Your task to perform on an android device: Is it going to rain tomorrow? Image 0: 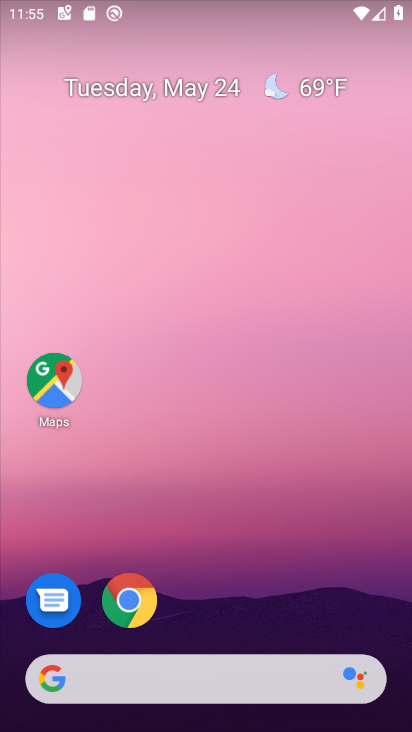
Step 0: click (266, 669)
Your task to perform on an android device: Is it going to rain tomorrow? Image 1: 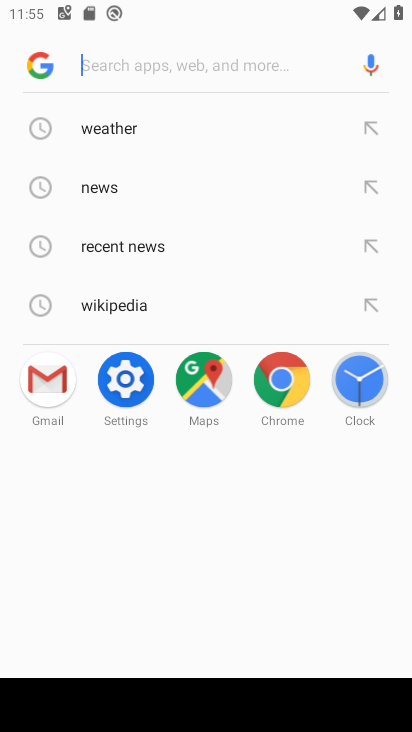
Step 1: click (129, 137)
Your task to perform on an android device: Is it going to rain tomorrow? Image 2: 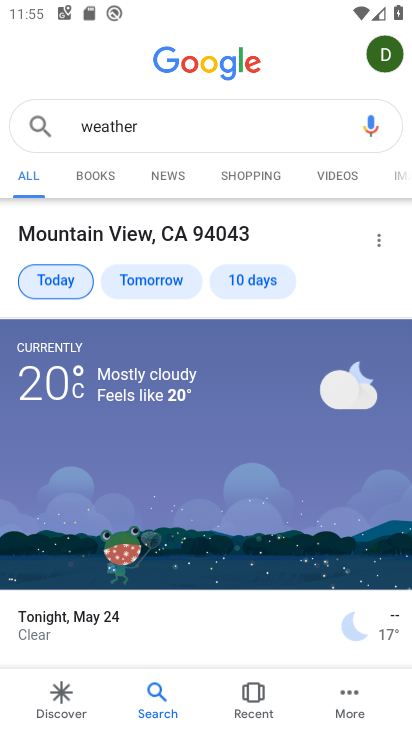
Step 2: click (170, 282)
Your task to perform on an android device: Is it going to rain tomorrow? Image 3: 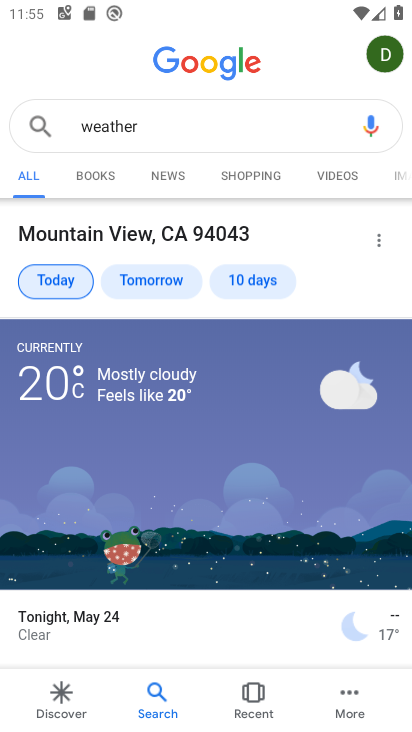
Step 3: click (168, 282)
Your task to perform on an android device: Is it going to rain tomorrow? Image 4: 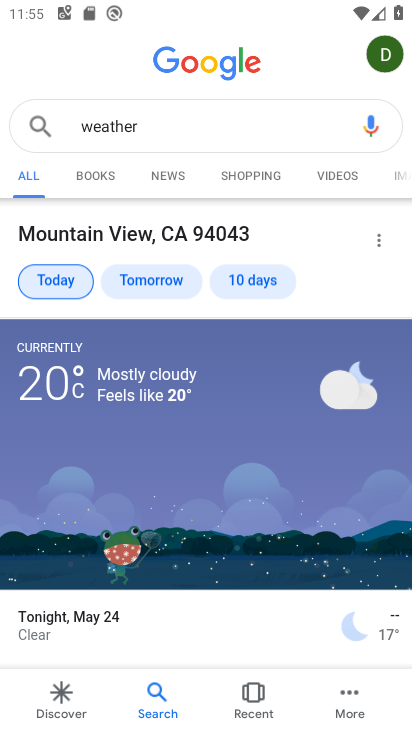
Step 4: click (168, 282)
Your task to perform on an android device: Is it going to rain tomorrow? Image 5: 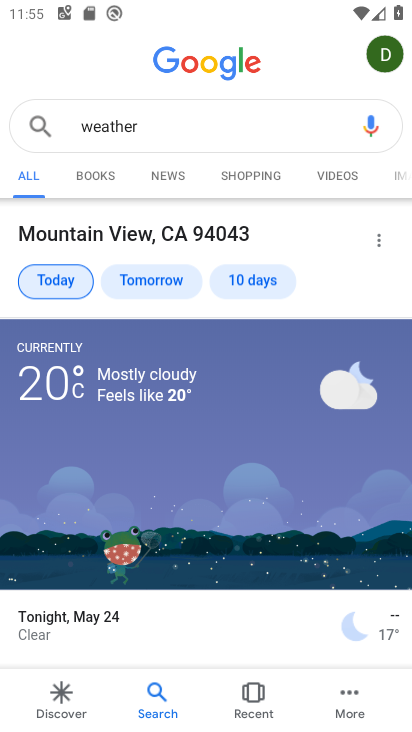
Step 5: click (168, 282)
Your task to perform on an android device: Is it going to rain tomorrow? Image 6: 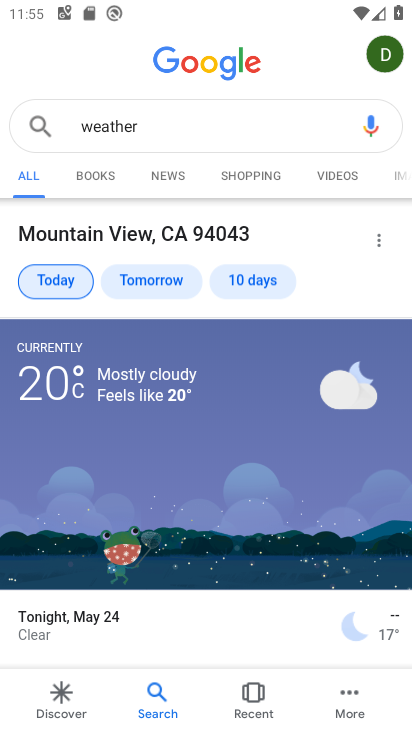
Step 6: click (168, 282)
Your task to perform on an android device: Is it going to rain tomorrow? Image 7: 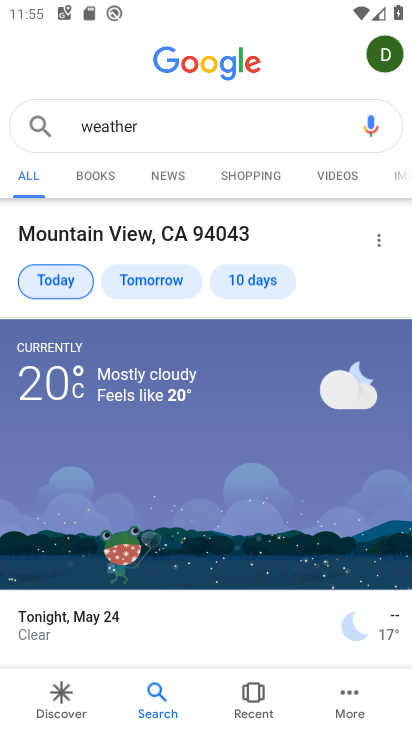
Step 7: click (168, 282)
Your task to perform on an android device: Is it going to rain tomorrow? Image 8: 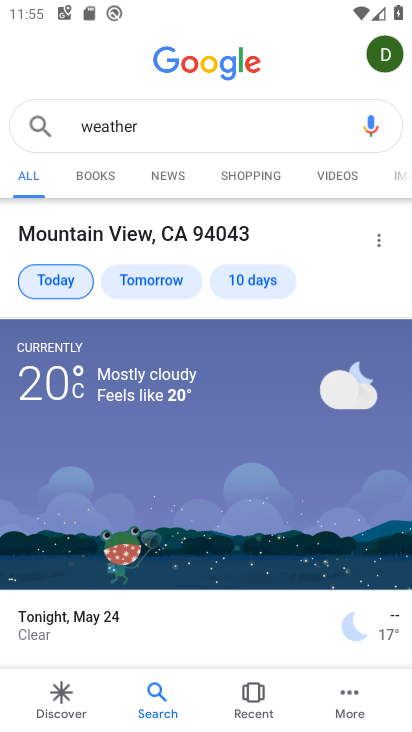
Step 8: click (168, 282)
Your task to perform on an android device: Is it going to rain tomorrow? Image 9: 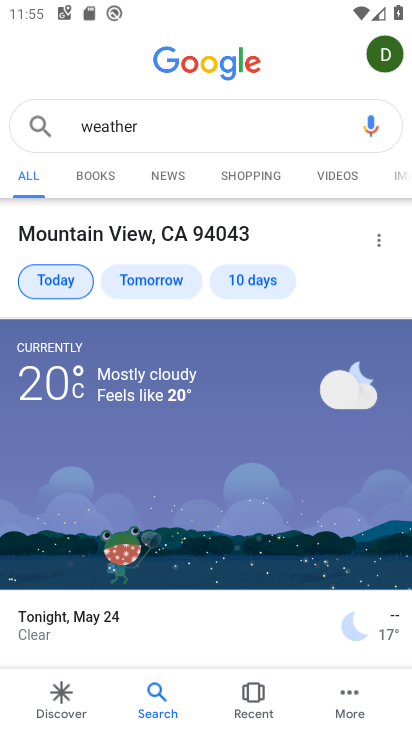
Step 9: click (168, 282)
Your task to perform on an android device: Is it going to rain tomorrow? Image 10: 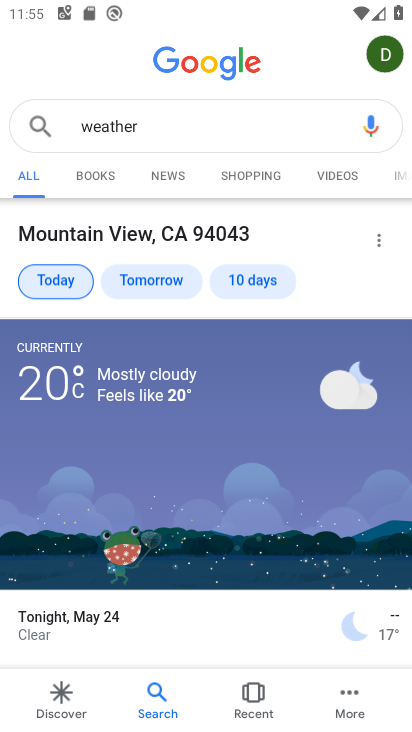
Step 10: click (168, 282)
Your task to perform on an android device: Is it going to rain tomorrow? Image 11: 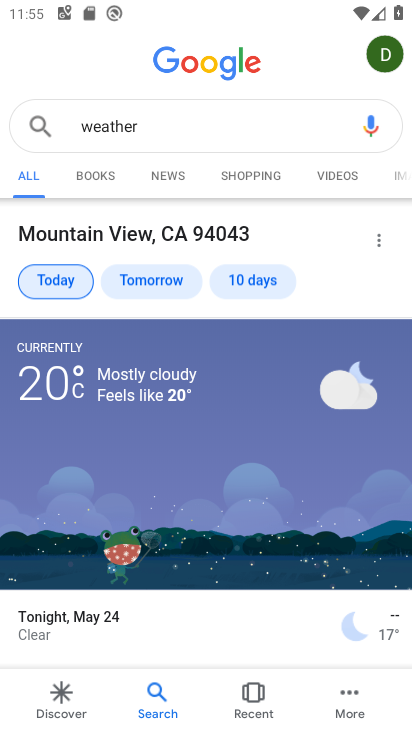
Step 11: click (168, 282)
Your task to perform on an android device: Is it going to rain tomorrow? Image 12: 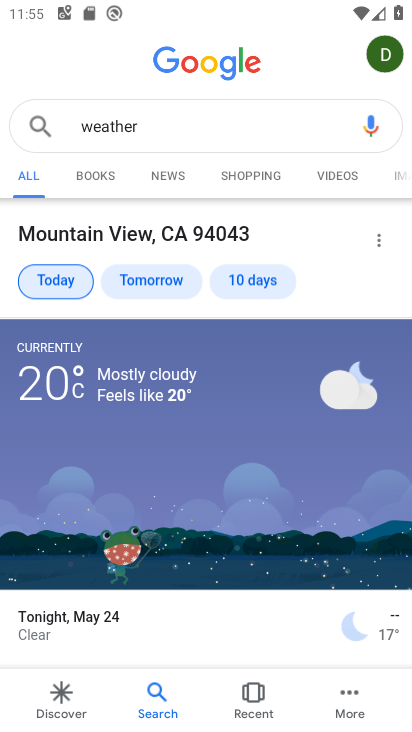
Step 12: click (168, 282)
Your task to perform on an android device: Is it going to rain tomorrow? Image 13: 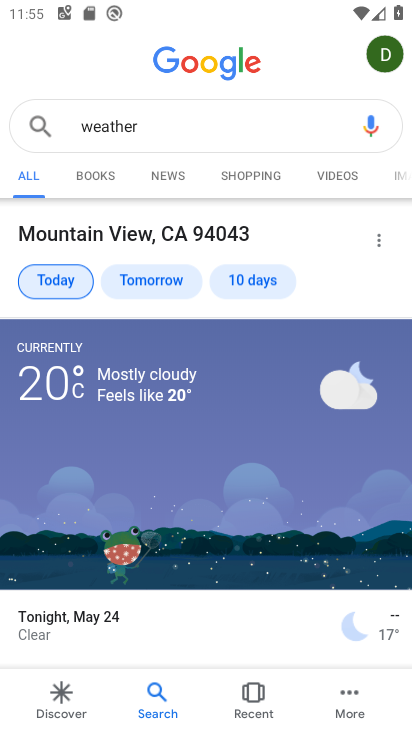
Step 13: click (168, 282)
Your task to perform on an android device: Is it going to rain tomorrow? Image 14: 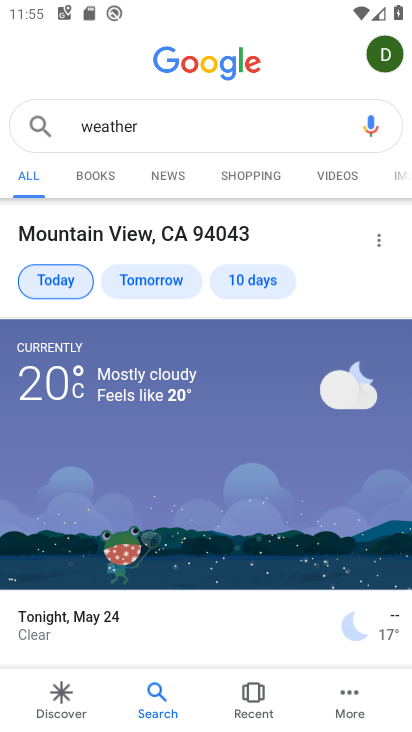
Step 14: click (168, 282)
Your task to perform on an android device: Is it going to rain tomorrow? Image 15: 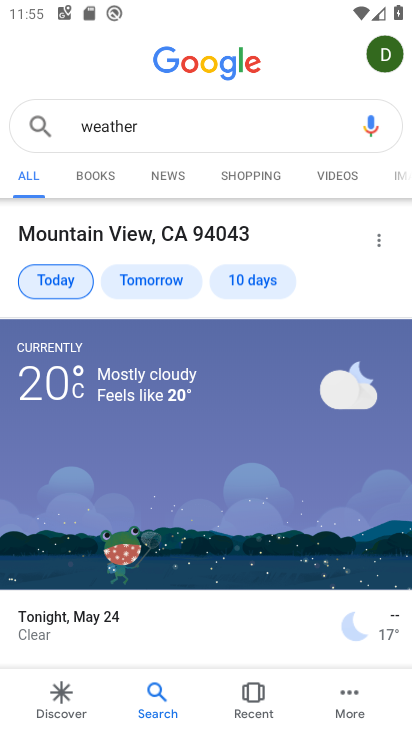
Step 15: click (168, 282)
Your task to perform on an android device: Is it going to rain tomorrow? Image 16: 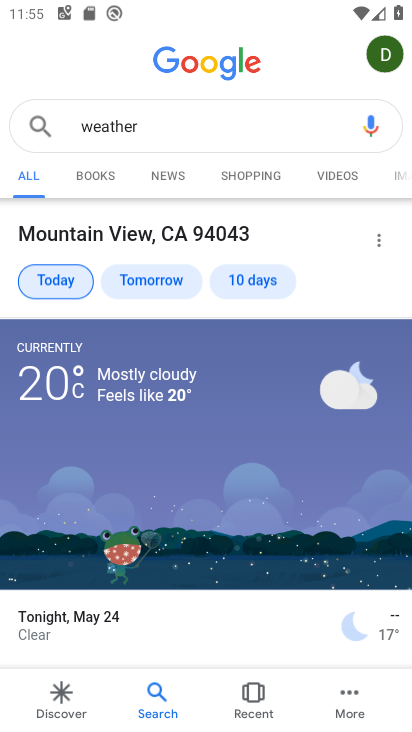
Step 16: click (168, 282)
Your task to perform on an android device: Is it going to rain tomorrow? Image 17: 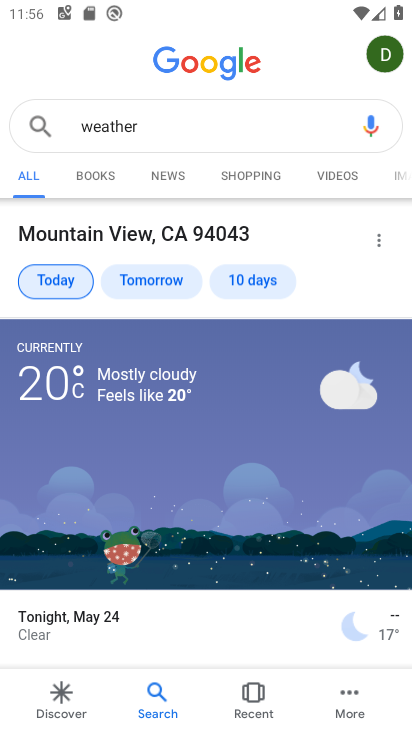
Step 17: task complete